Your task to perform on an android device: Open the calendar and show me this week's events? Image 0: 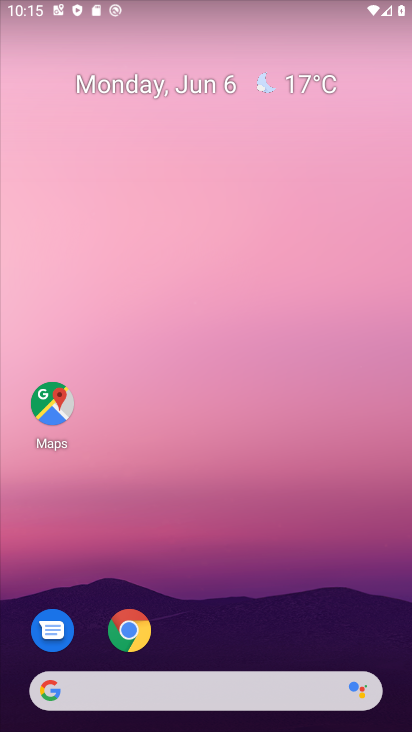
Step 0: drag from (370, 603) to (360, 168)
Your task to perform on an android device: Open the calendar and show me this week's events? Image 1: 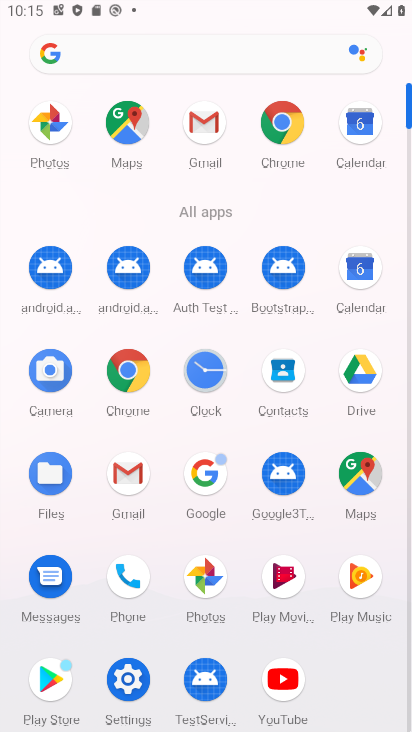
Step 1: click (359, 282)
Your task to perform on an android device: Open the calendar and show me this week's events? Image 2: 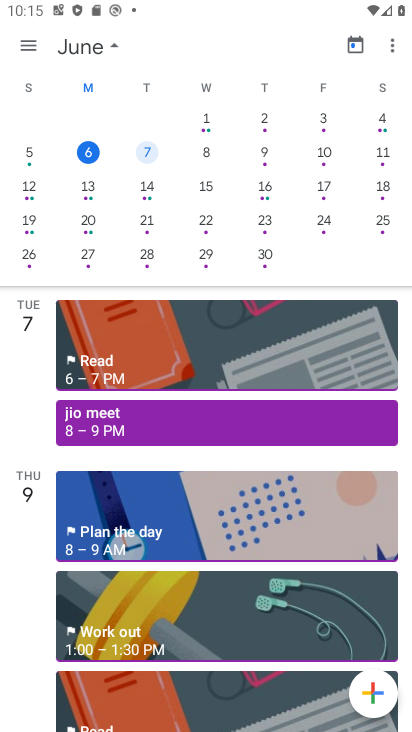
Step 2: task complete